Your task to perform on an android device: Go to Wikipedia Image 0: 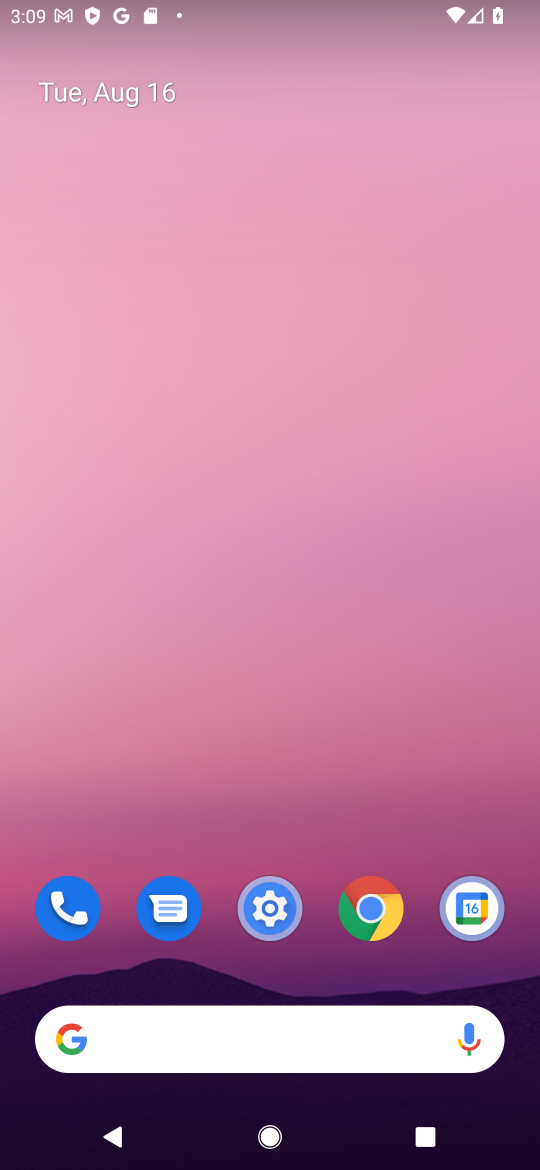
Step 0: click (366, 912)
Your task to perform on an android device: Go to Wikipedia Image 1: 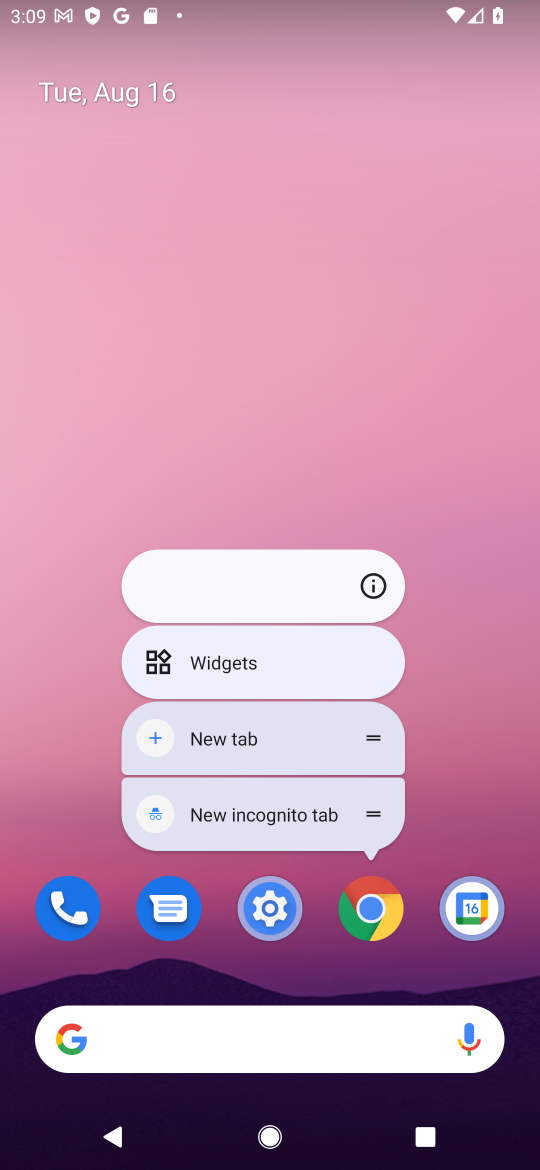
Step 1: click (382, 923)
Your task to perform on an android device: Go to Wikipedia Image 2: 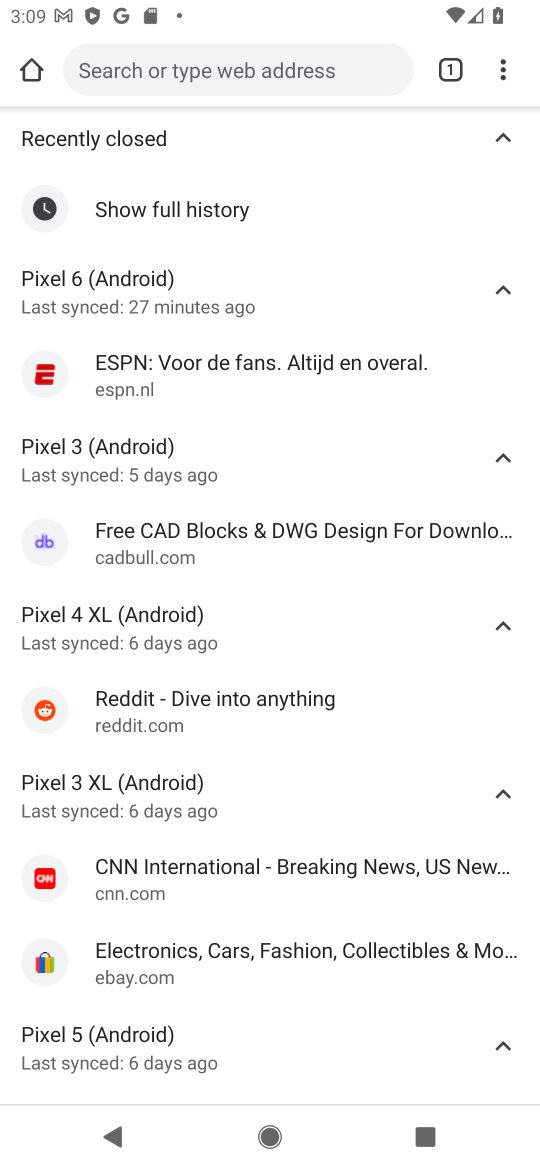
Step 2: click (451, 65)
Your task to perform on an android device: Go to Wikipedia Image 3: 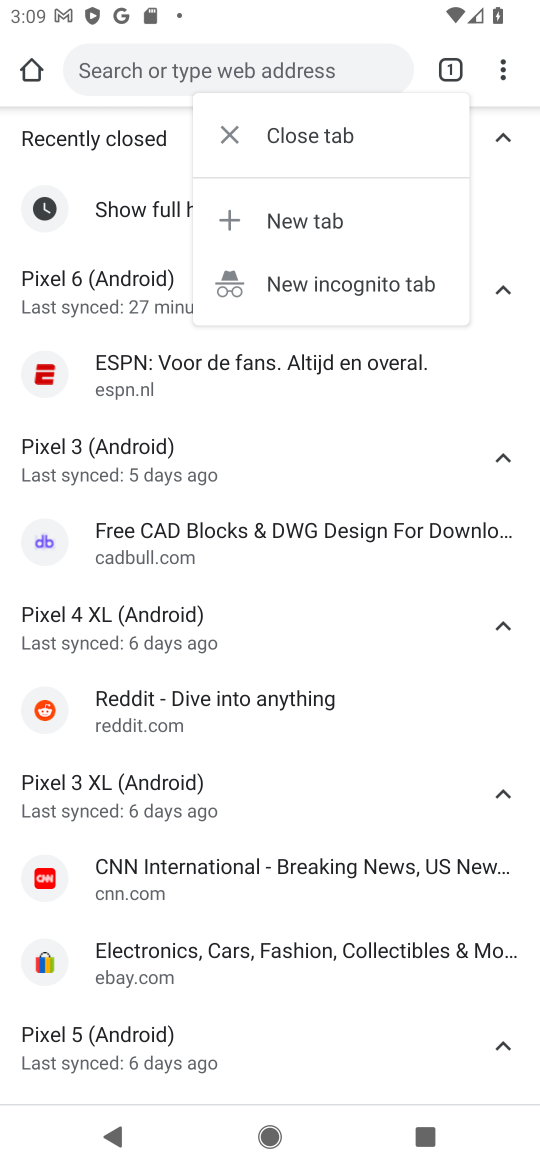
Step 3: click (324, 226)
Your task to perform on an android device: Go to Wikipedia Image 4: 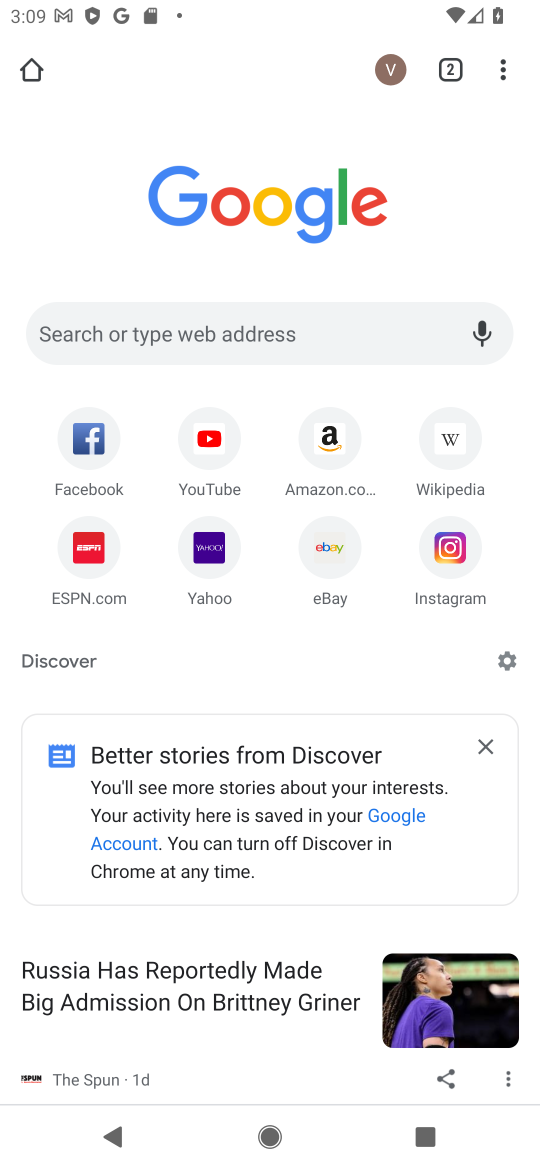
Step 4: click (462, 453)
Your task to perform on an android device: Go to Wikipedia Image 5: 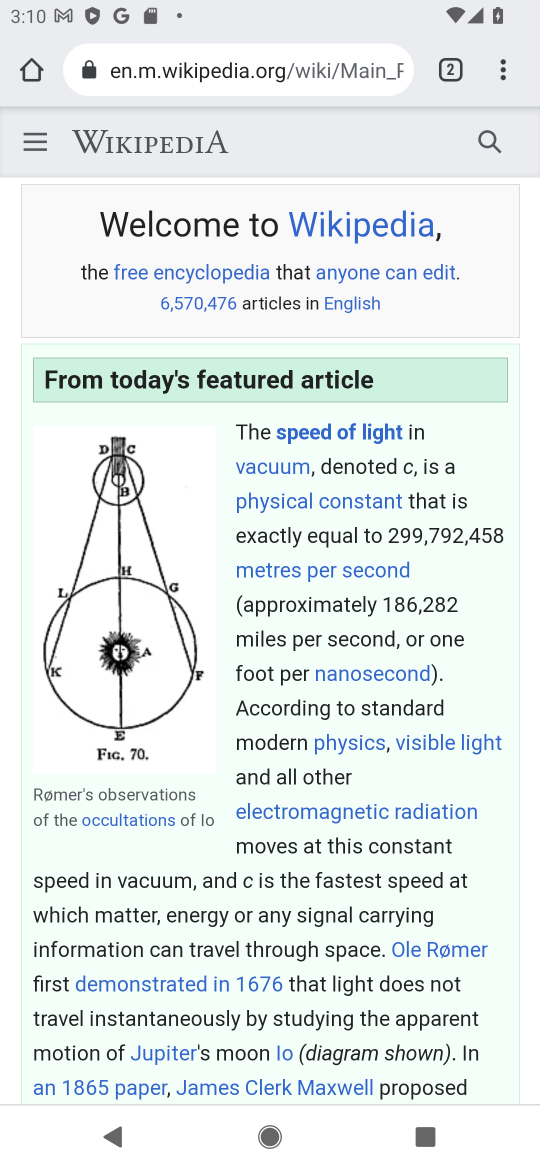
Step 5: task complete